Your task to perform on an android device: turn on location history Image 0: 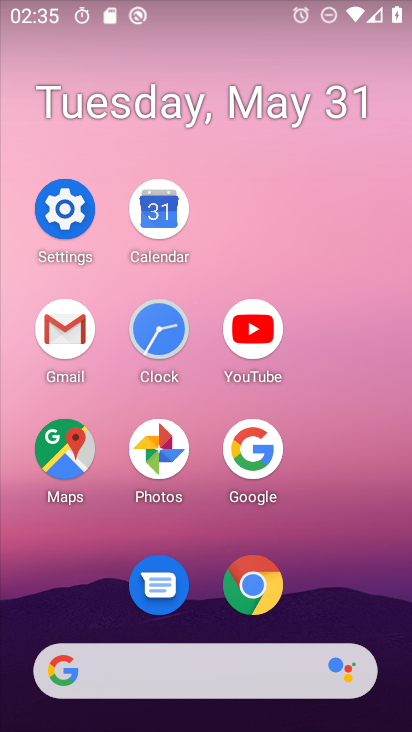
Step 0: click (72, 231)
Your task to perform on an android device: turn on location history Image 1: 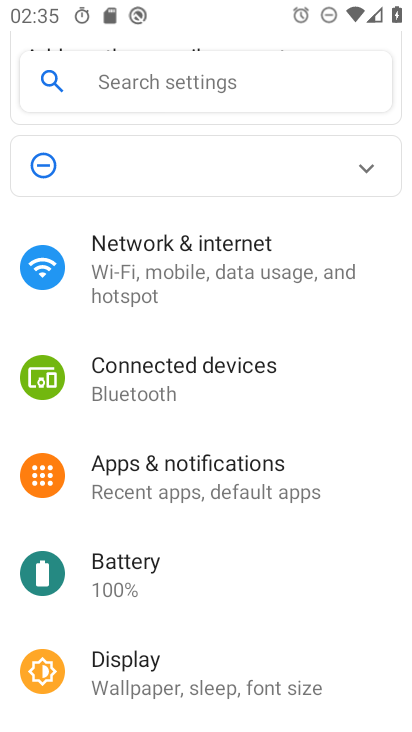
Step 1: drag from (209, 617) to (269, 210)
Your task to perform on an android device: turn on location history Image 2: 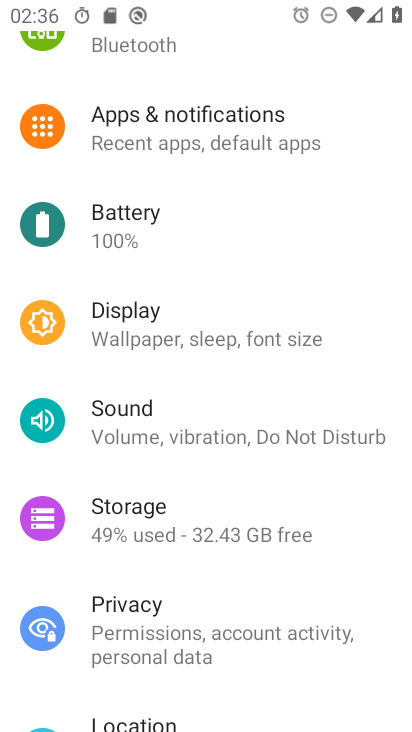
Step 2: drag from (252, 562) to (254, 148)
Your task to perform on an android device: turn on location history Image 3: 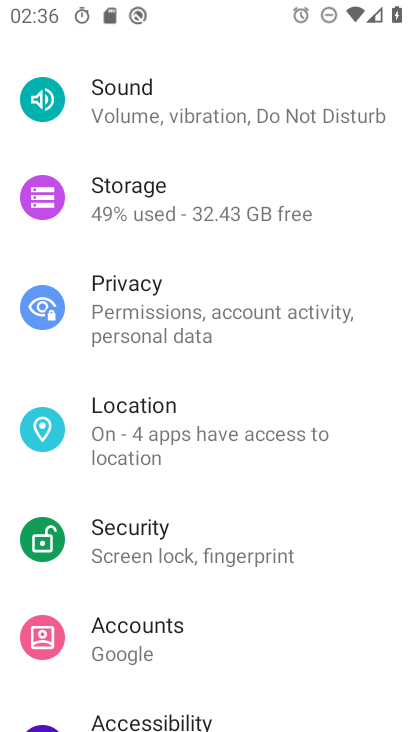
Step 3: click (173, 406)
Your task to perform on an android device: turn on location history Image 4: 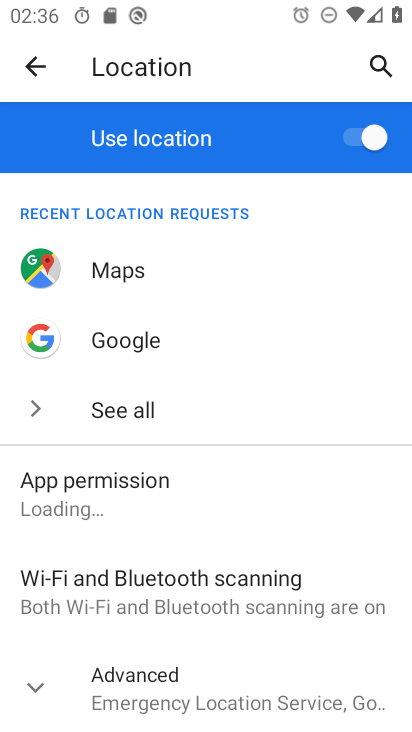
Step 4: click (177, 686)
Your task to perform on an android device: turn on location history Image 5: 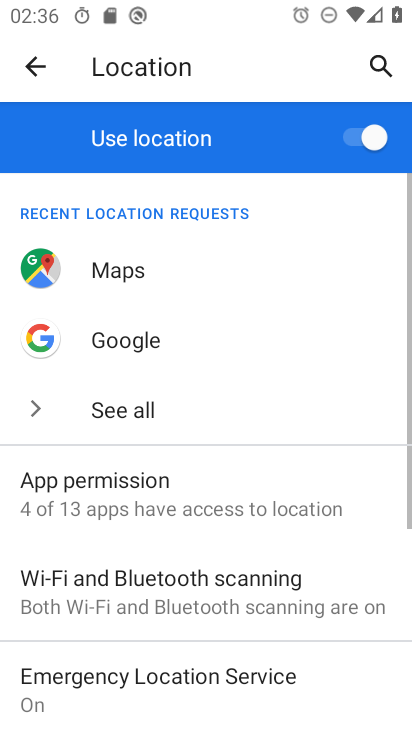
Step 5: drag from (254, 566) to (273, 183)
Your task to perform on an android device: turn on location history Image 6: 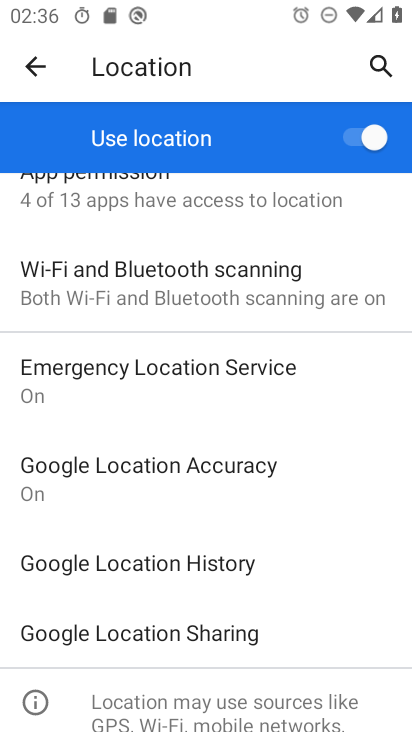
Step 6: click (216, 556)
Your task to perform on an android device: turn on location history Image 7: 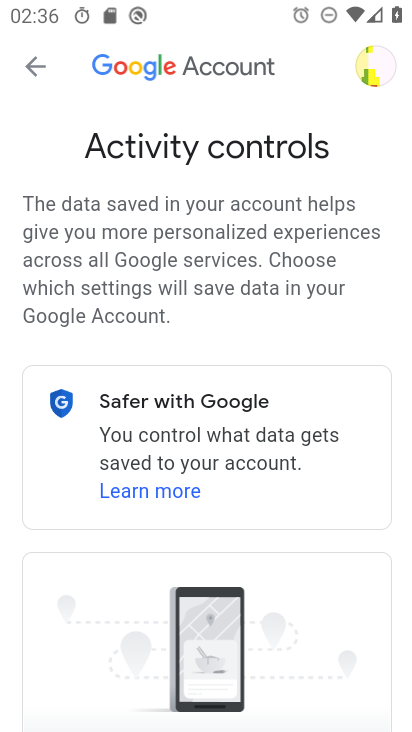
Step 7: drag from (215, 556) to (249, 182)
Your task to perform on an android device: turn on location history Image 8: 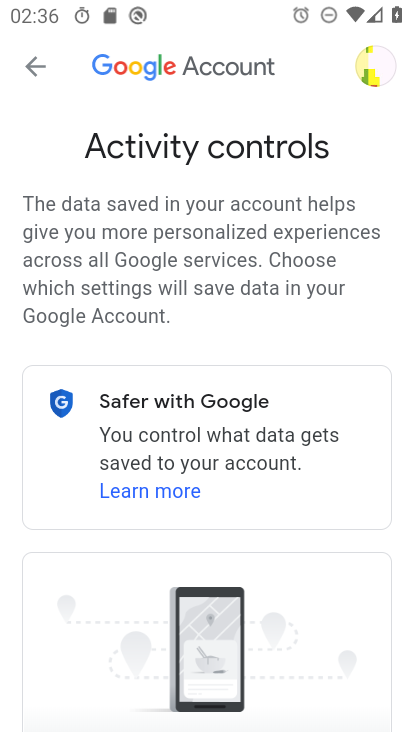
Step 8: drag from (279, 469) to (262, 175)
Your task to perform on an android device: turn on location history Image 9: 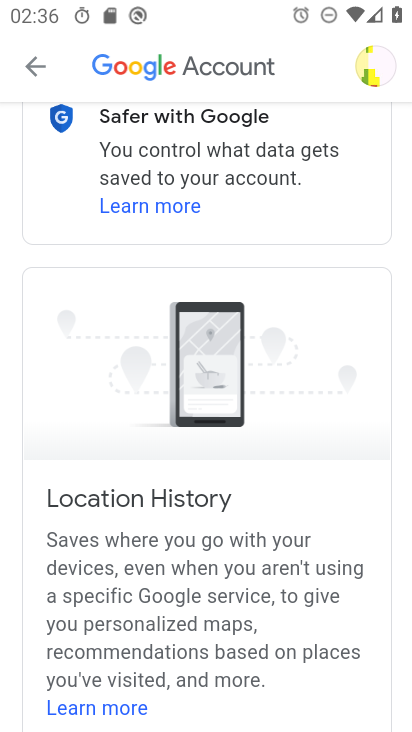
Step 9: drag from (238, 636) to (242, 209)
Your task to perform on an android device: turn on location history Image 10: 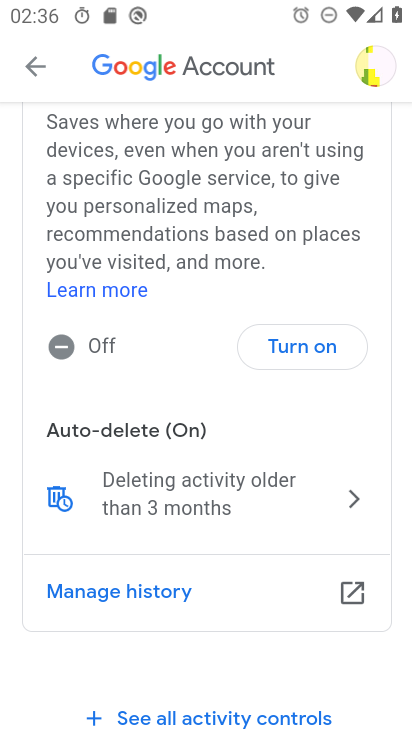
Step 10: click (333, 343)
Your task to perform on an android device: turn on location history Image 11: 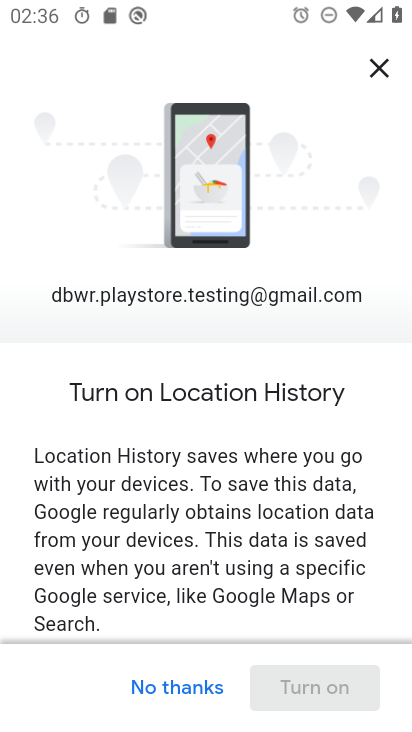
Step 11: drag from (311, 618) to (266, 190)
Your task to perform on an android device: turn on location history Image 12: 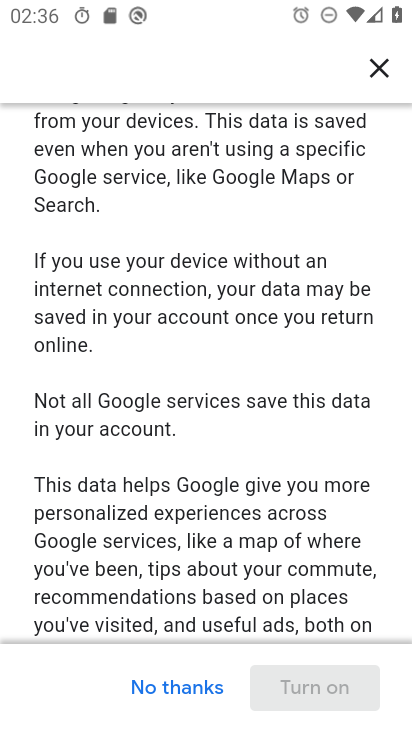
Step 12: drag from (285, 614) to (264, 121)
Your task to perform on an android device: turn on location history Image 13: 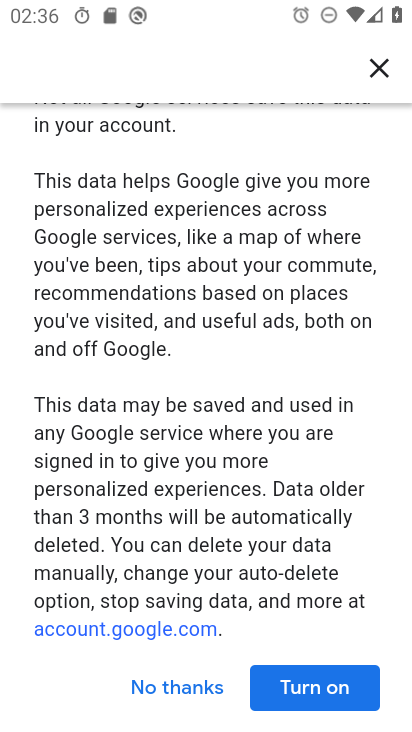
Step 13: click (293, 709)
Your task to perform on an android device: turn on location history Image 14: 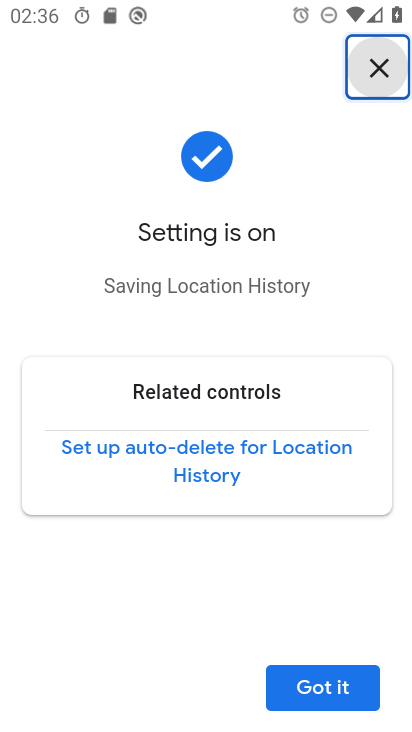
Step 14: click (305, 688)
Your task to perform on an android device: turn on location history Image 15: 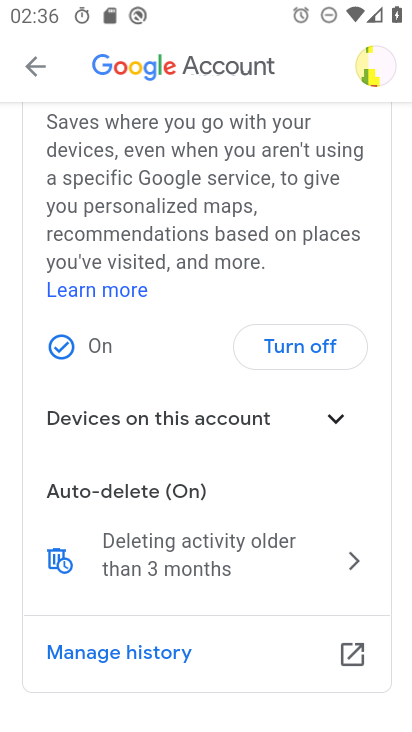
Step 15: task complete